Your task to perform on an android device: Open the phone app and click the voicemail tab. Image 0: 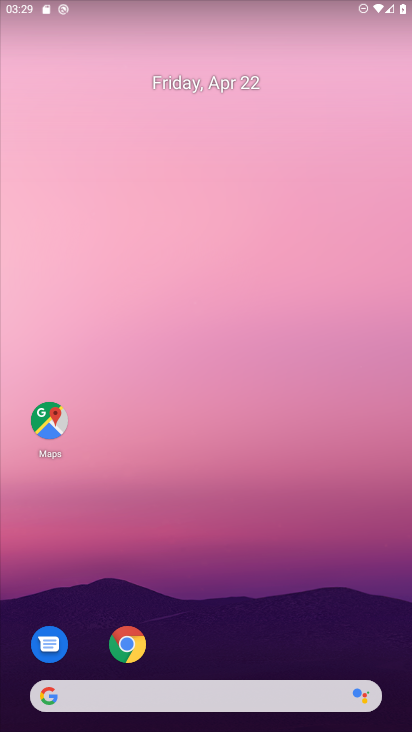
Step 0: drag from (234, 623) to (233, 135)
Your task to perform on an android device: Open the phone app and click the voicemail tab. Image 1: 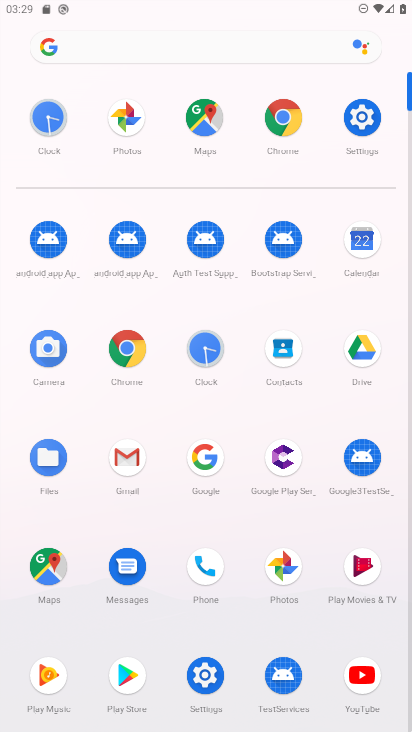
Step 1: click (201, 573)
Your task to perform on an android device: Open the phone app and click the voicemail tab. Image 2: 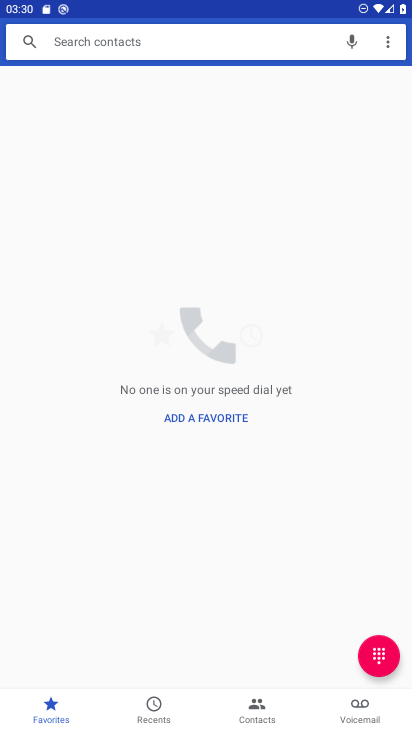
Step 2: click (342, 715)
Your task to perform on an android device: Open the phone app and click the voicemail tab. Image 3: 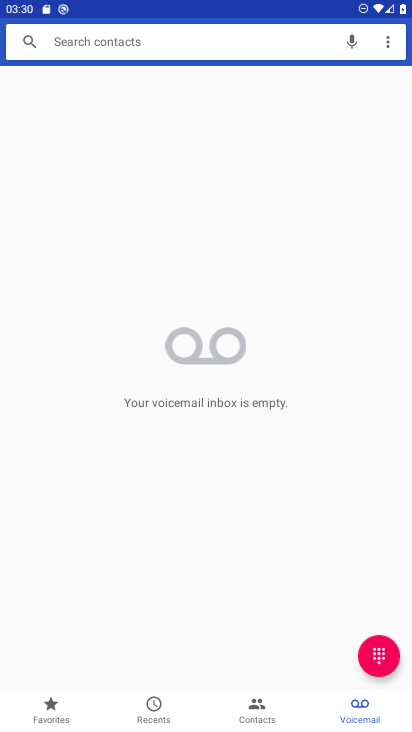
Step 3: task complete